Your task to perform on an android device: Open location settings Image 0: 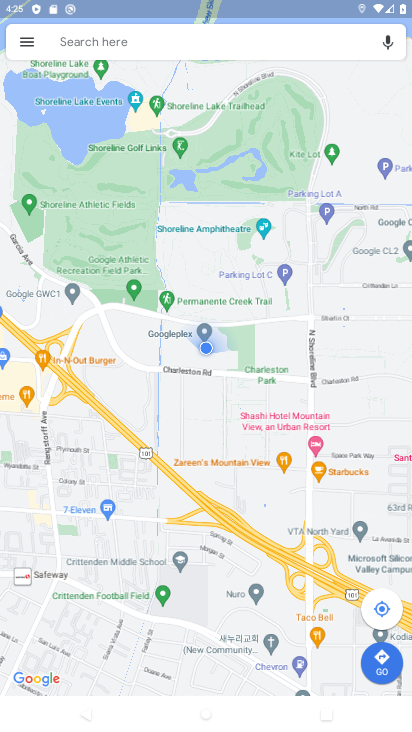
Step 0: press home button
Your task to perform on an android device: Open location settings Image 1: 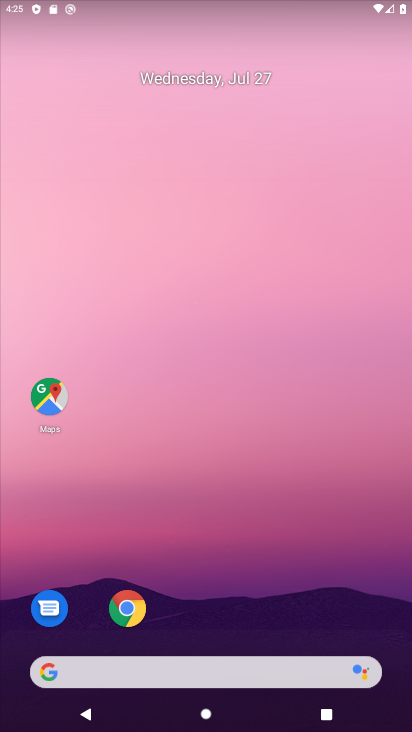
Step 1: drag from (280, 624) to (262, 144)
Your task to perform on an android device: Open location settings Image 2: 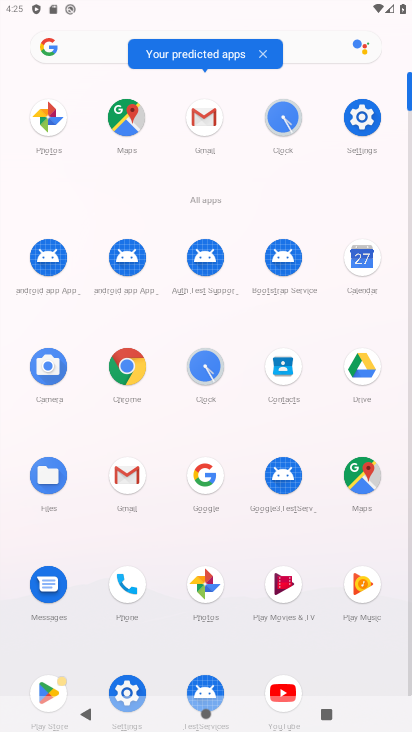
Step 2: click (353, 132)
Your task to perform on an android device: Open location settings Image 3: 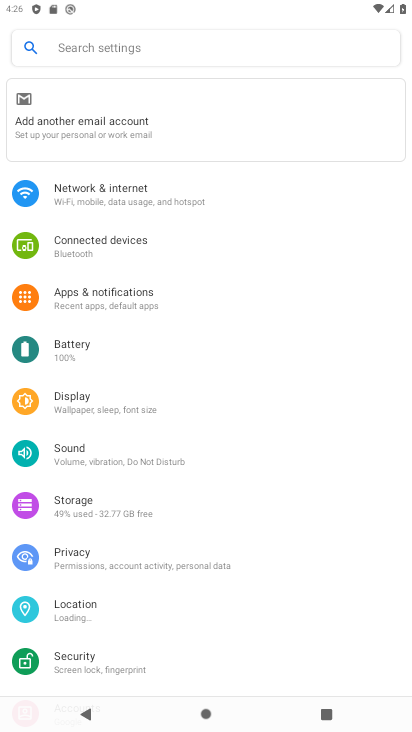
Step 3: click (83, 605)
Your task to perform on an android device: Open location settings Image 4: 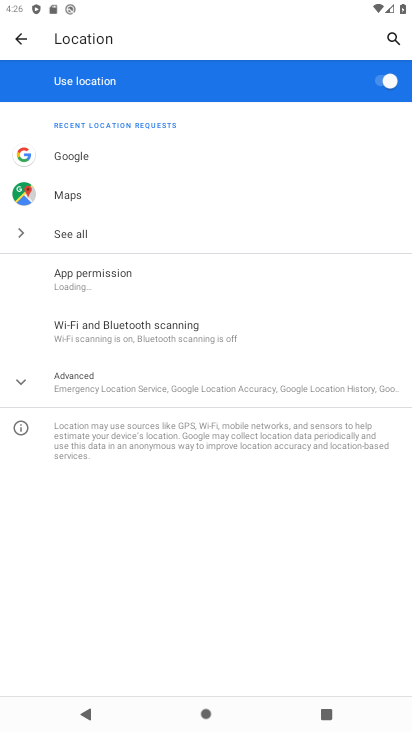
Step 4: task complete